Your task to perform on an android device: open chrome and create a bookmark for the current page Image 0: 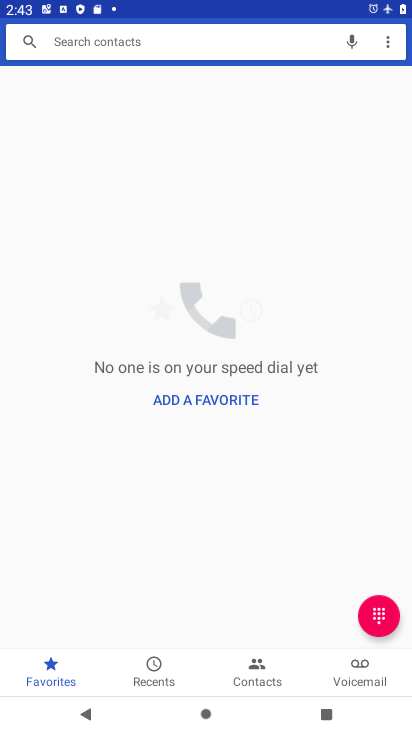
Step 0: press home button
Your task to perform on an android device: open chrome and create a bookmark for the current page Image 1: 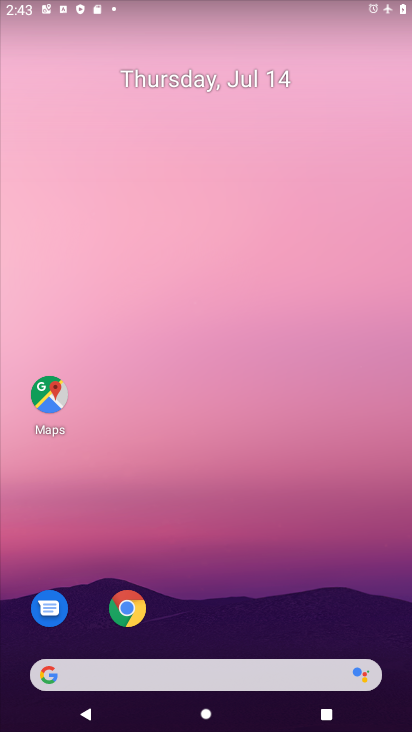
Step 1: click (126, 611)
Your task to perform on an android device: open chrome and create a bookmark for the current page Image 2: 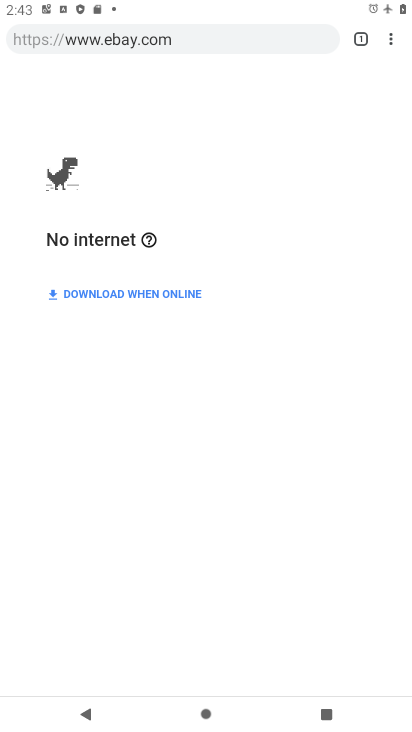
Step 2: click (389, 43)
Your task to perform on an android device: open chrome and create a bookmark for the current page Image 3: 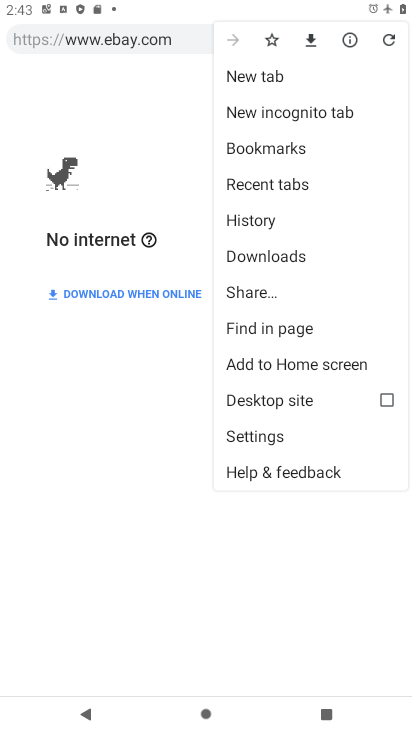
Step 3: click (269, 40)
Your task to perform on an android device: open chrome and create a bookmark for the current page Image 4: 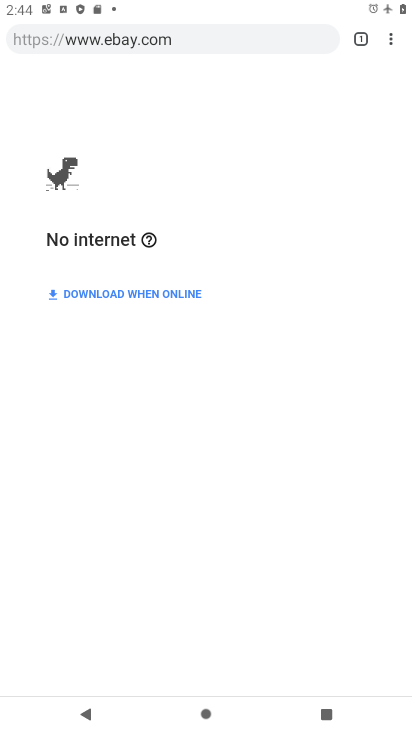
Step 4: task complete